Your task to perform on an android device: Open display settings Image 0: 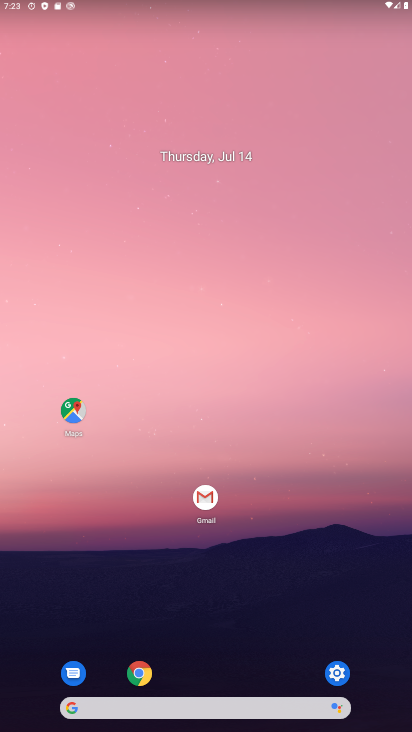
Step 0: click (347, 667)
Your task to perform on an android device: Open display settings Image 1: 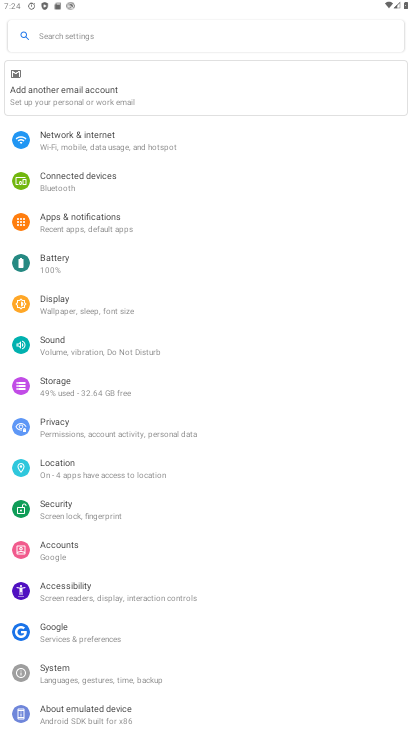
Step 1: click (96, 311)
Your task to perform on an android device: Open display settings Image 2: 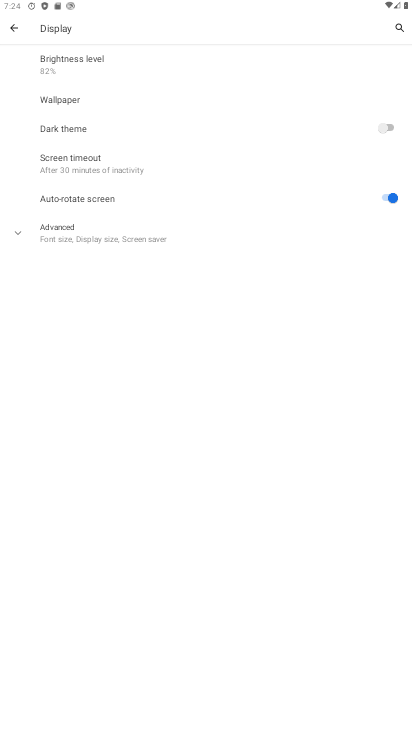
Step 2: task complete